Your task to perform on an android device: Go to Wikipedia Image 0: 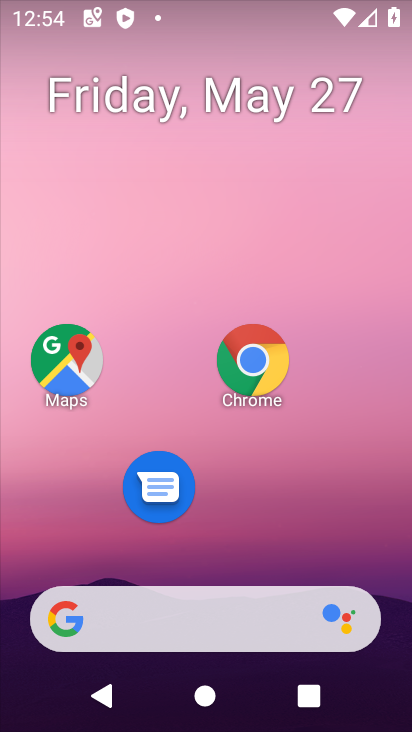
Step 0: click (253, 358)
Your task to perform on an android device: Go to Wikipedia Image 1: 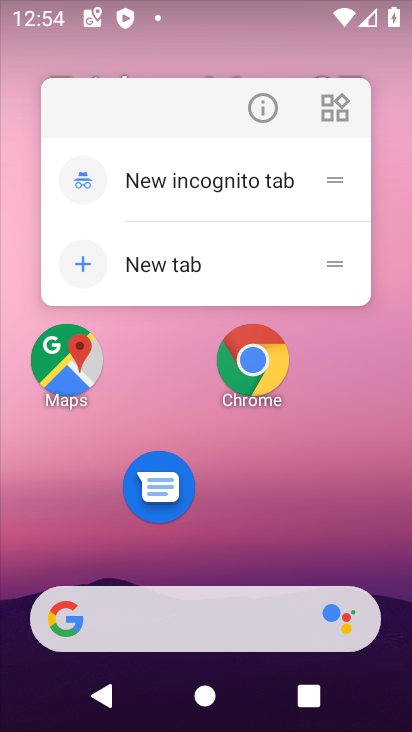
Step 1: click (251, 358)
Your task to perform on an android device: Go to Wikipedia Image 2: 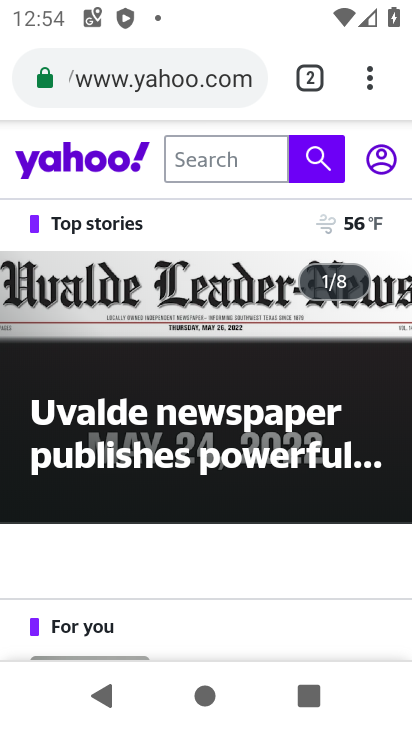
Step 2: press back button
Your task to perform on an android device: Go to Wikipedia Image 3: 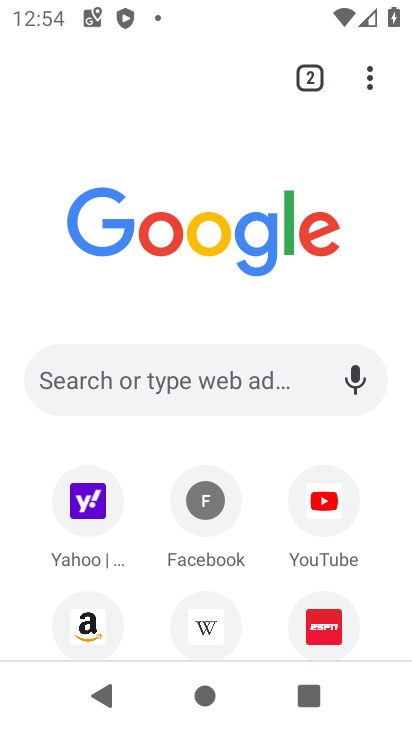
Step 3: click (207, 625)
Your task to perform on an android device: Go to Wikipedia Image 4: 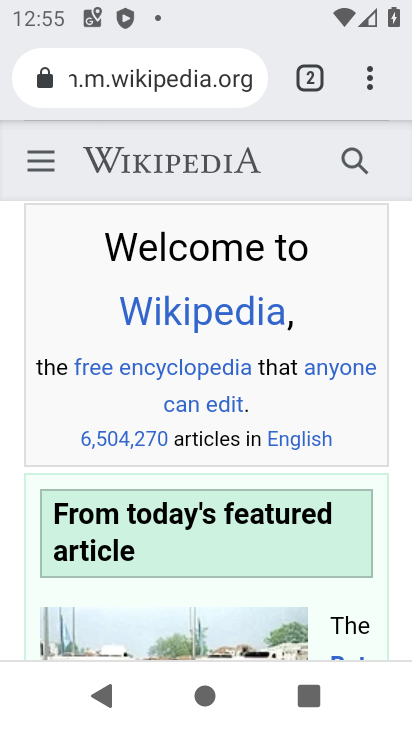
Step 4: task complete